Your task to perform on an android device: Open calendar and show me the first week of next month Image 0: 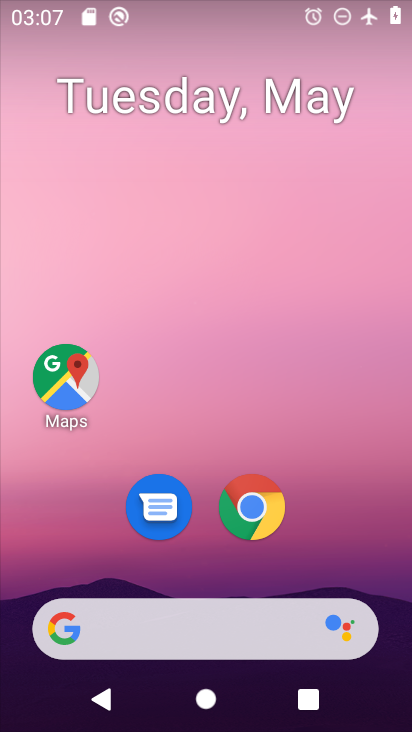
Step 0: drag from (218, 582) to (198, 199)
Your task to perform on an android device: Open calendar and show me the first week of next month Image 1: 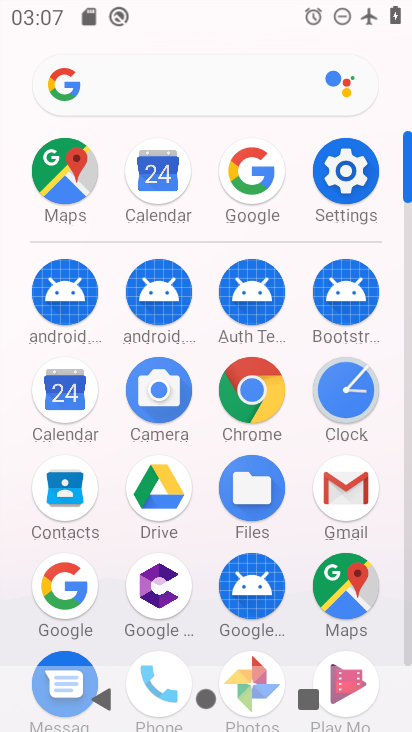
Step 1: click (141, 175)
Your task to perform on an android device: Open calendar and show me the first week of next month Image 2: 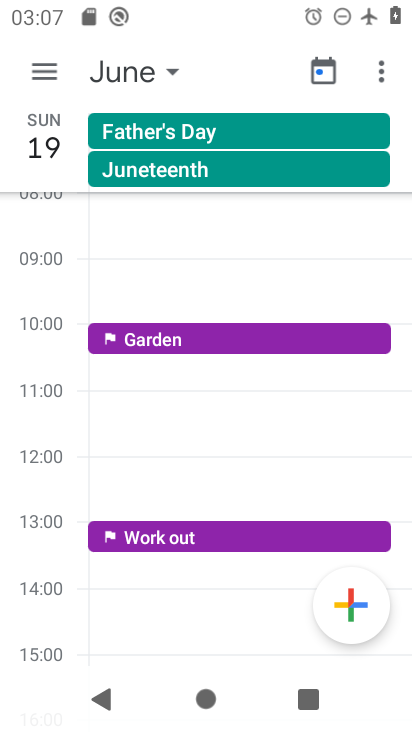
Step 2: click (146, 71)
Your task to perform on an android device: Open calendar and show me the first week of next month Image 3: 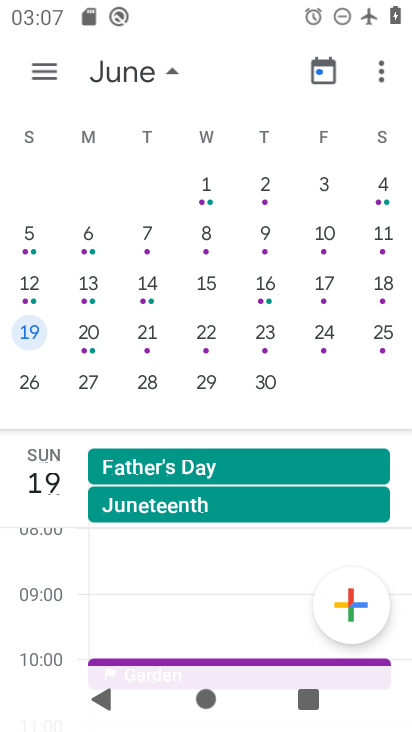
Step 3: drag from (145, 319) to (411, 307)
Your task to perform on an android device: Open calendar and show me the first week of next month Image 4: 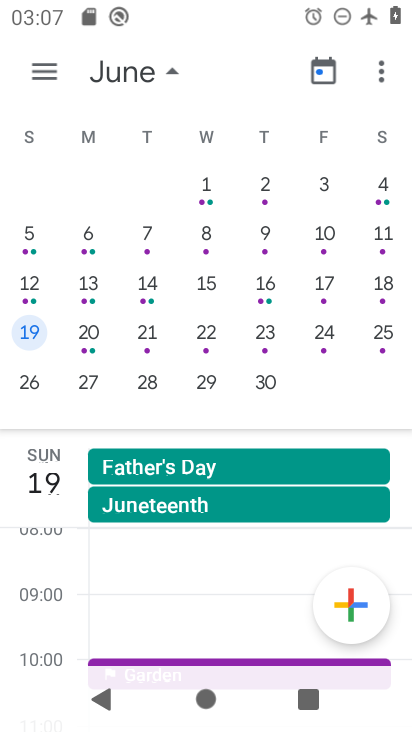
Step 4: click (21, 294)
Your task to perform on an android device: Open calendar and show me the first week of next month Image 5: 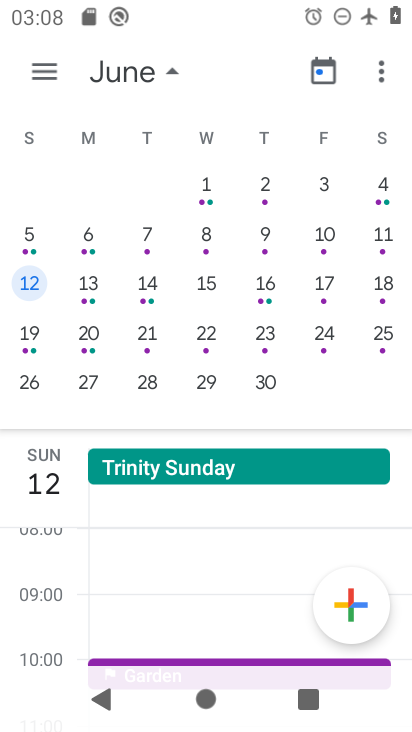
Step 5: click (213, 179)
Your task to perform on an android device: Open calendar and show me the first week of next month Image 6: 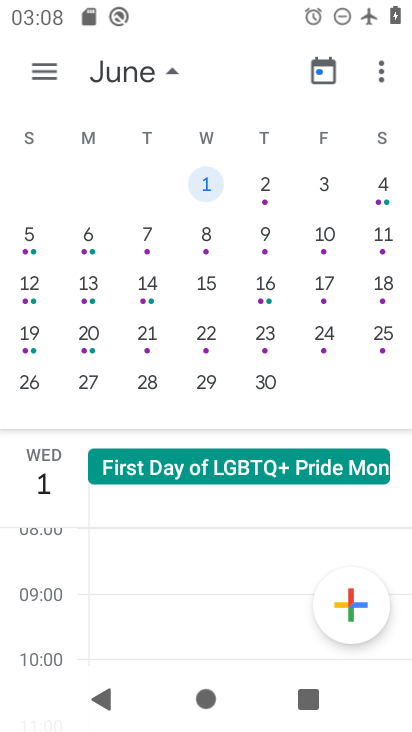
Step 6: task complete